Your task to perform on an android device: Go to location settings Image 0: 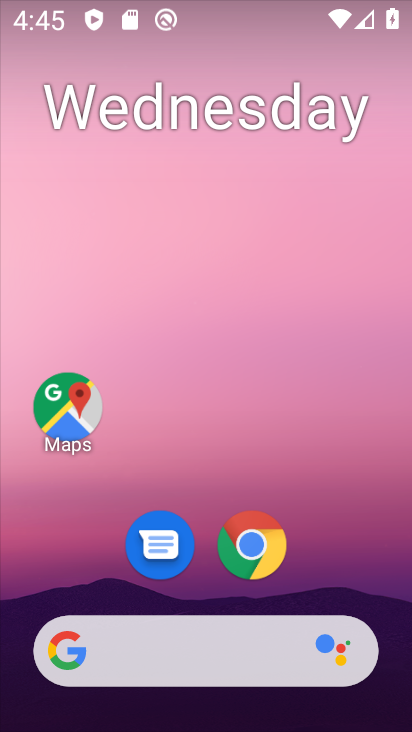
Step 0: drag from (327, 538) to (221, 83)
Your task to perform on an android device: Go to location settings Image 1: 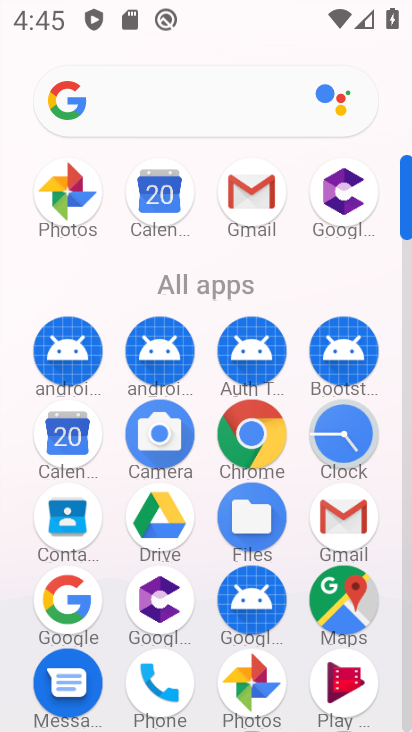
Step 1: drag from (293, 547) to (325, 373)
Your task to perform on an android device: Go to location settings Image 2: 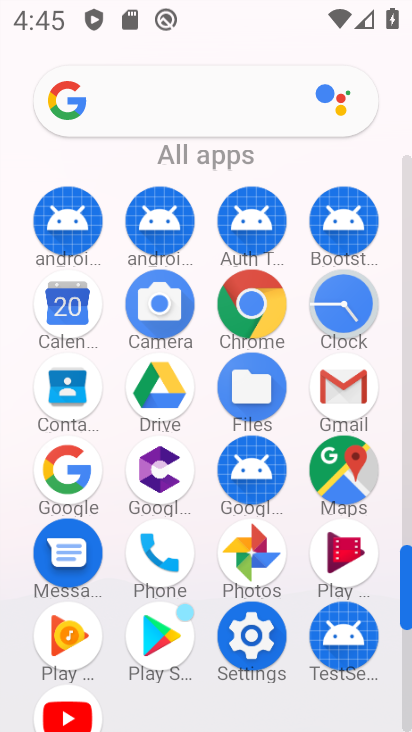
Step 2: click (256, 623)
Your task to perform on an android device: Go to location settings Image 3: 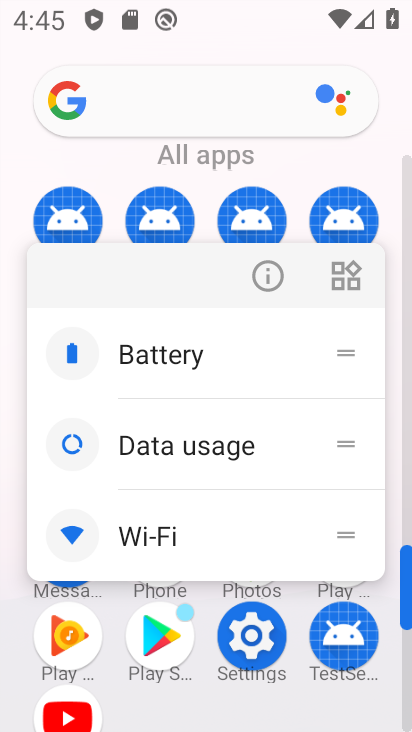
Step 3: click (242, 643)
Your task to perform on an android device: Go to location settings Image 4: 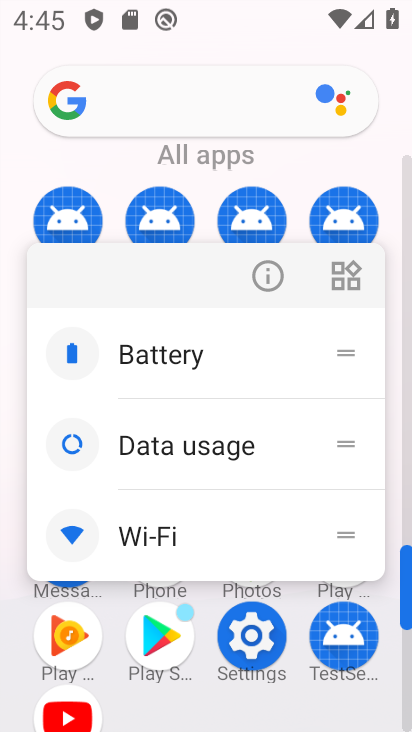
Step 4: click (250, 635)
Your task to perform on an android device: Go to location settings Image 5: 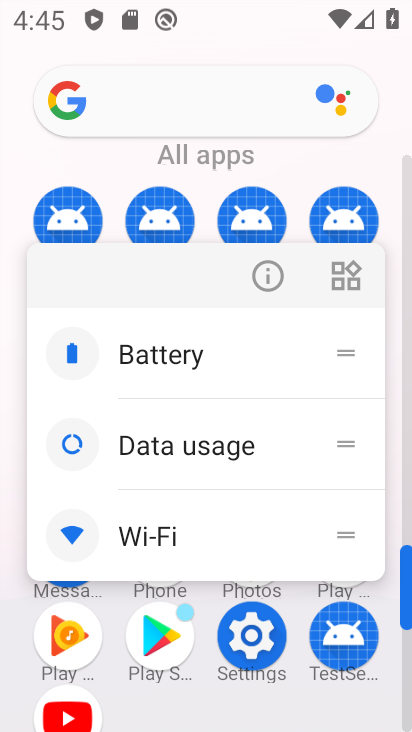
Step 5: click (256, 637)
Your task to perform on an android device: Go to location settings Image 6: 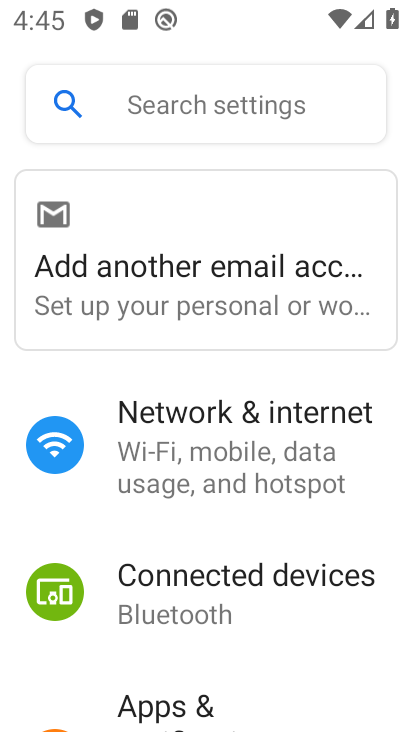
Step 6: drag from (257, 623) to (225, 152)
Your task to perform on an android device: Go to location settings Image 7: 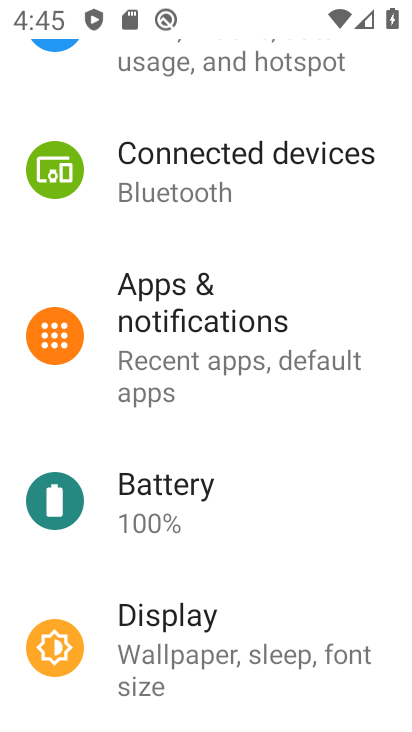
Step 7: drag from (316, 384) to (295, 211)
Your task to perform on an android device: Go to location settings Image 8: 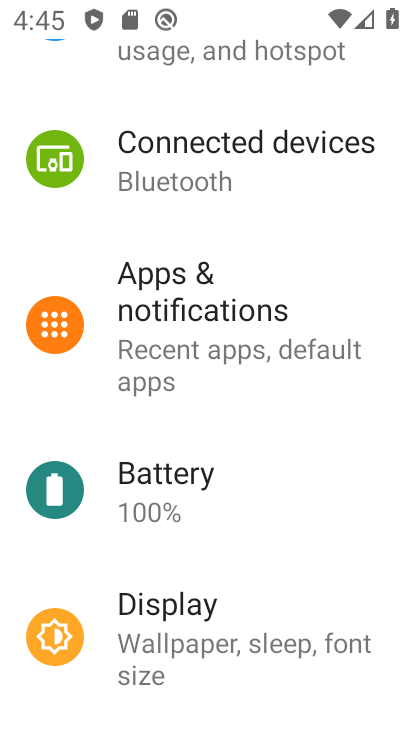
Step 8: drag from (220, 469) to (262, 169)
Your task to perform on an android device: Go to location settings Image 9: 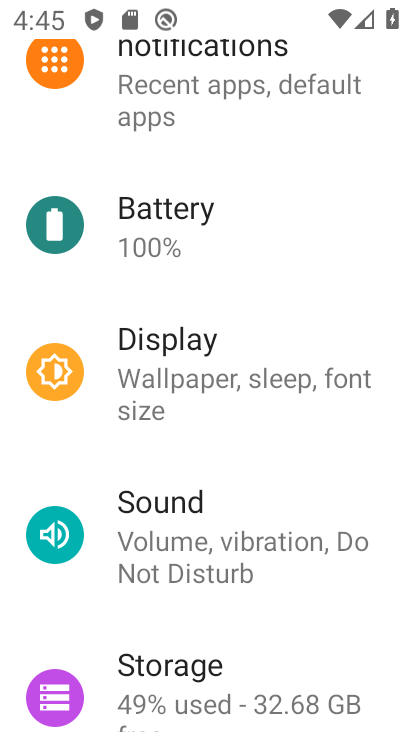
Step 9: drag from (289, 645) to (312, 205)
Your task to perform on an android device: Go to location settings Image 10: 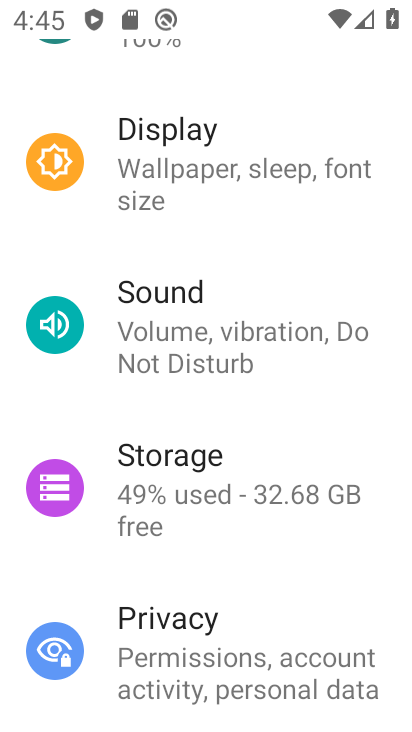
Step 10: drag from (259, 404) to (273, 186)
Your task to perform on an android device: Go to location settings Image 11: 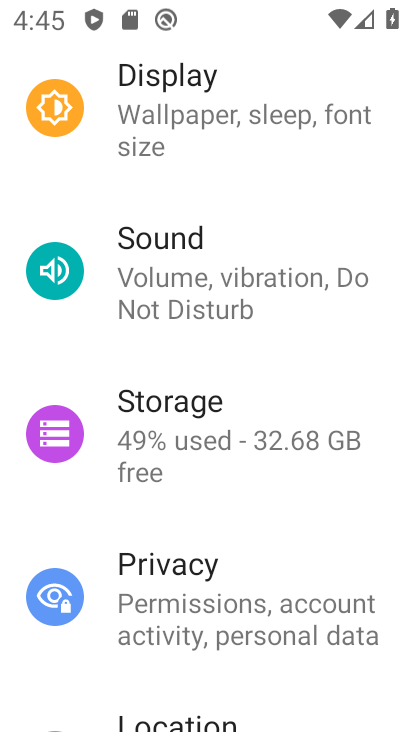
Step 11: drag from (258, 395) to (274, 183)
Your task to perform on an android device: Go to location settings Image 12: 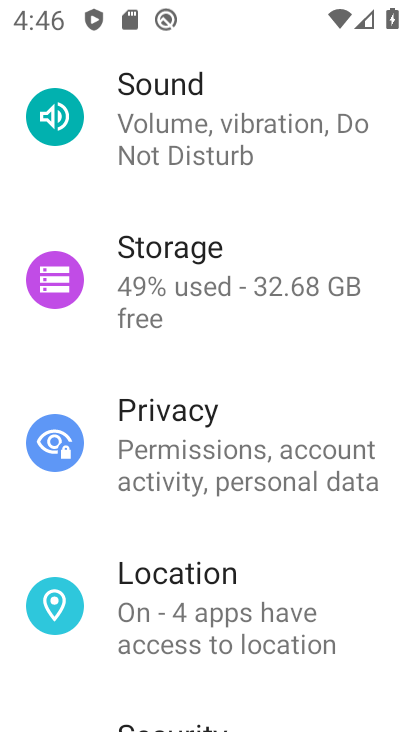
Step 12: click (152, 609)
Your task to perform on an android device: Go to location settings Image 13: 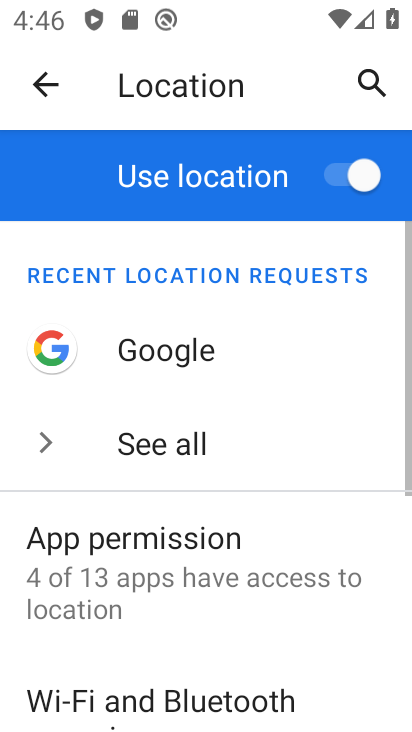
Step 13: task complete